Your task to perform on an android device: change the upload size in google photos Image 0: 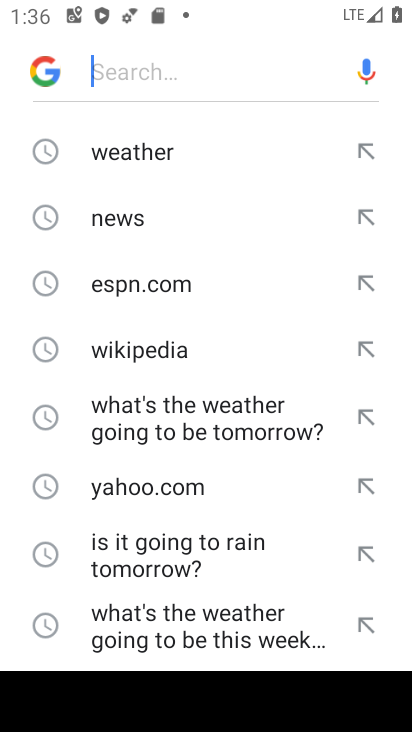
Step 0: press home button
Your task to perform on an android device: change the upload size in google photos Image 1: 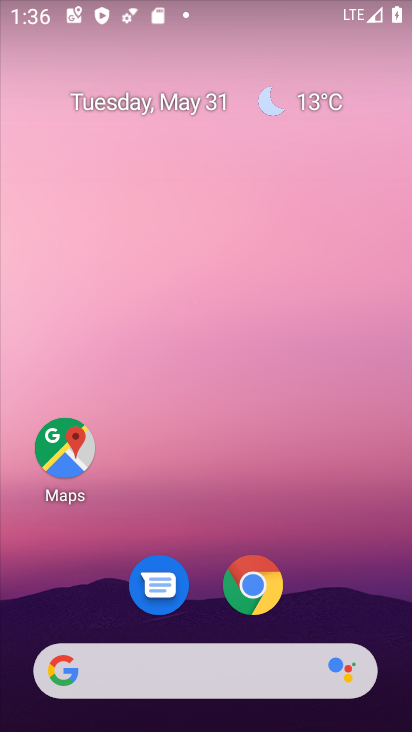
Step 1: drag from (213, 501) to (240, 37)
Your task to perform on an android device: change the upload size in google photos Image 2: 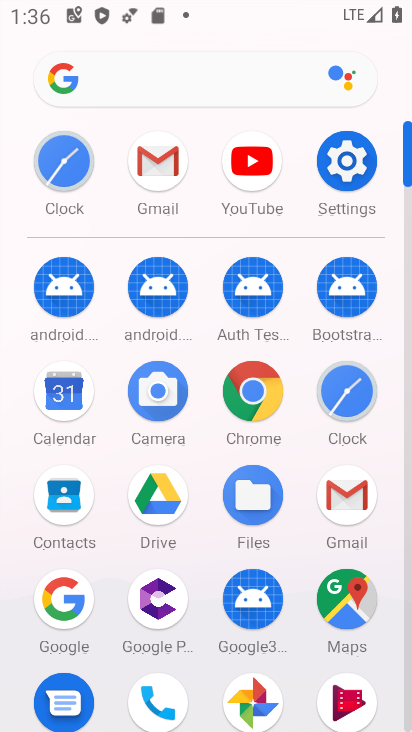
Step 2: click (267, 685)
Your task to perform on an android device: change the upload size in google photos Image 3: 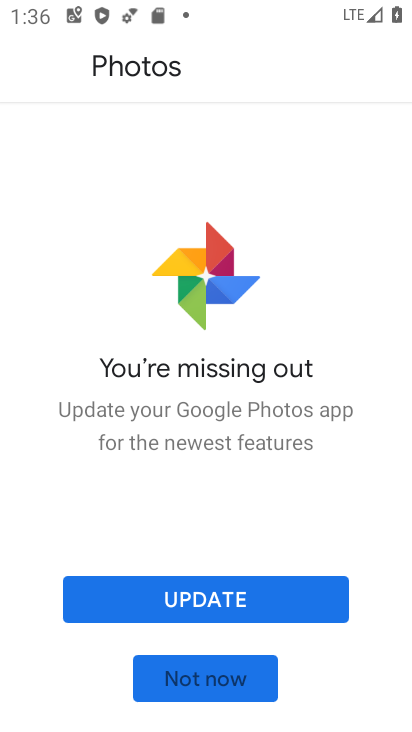
Step 3: click (237, 675)
Your task to perform on an android device: change the upload size in google photos Image 4: 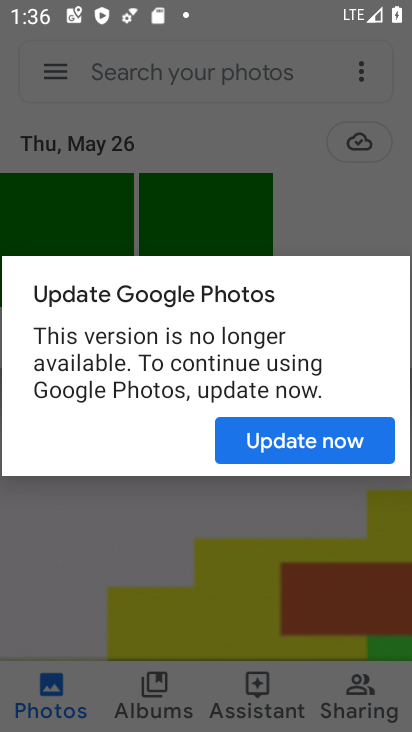
Step 4: click (313, 433)
Your task to perform on an android device: change the upload size in google photos Image 5: 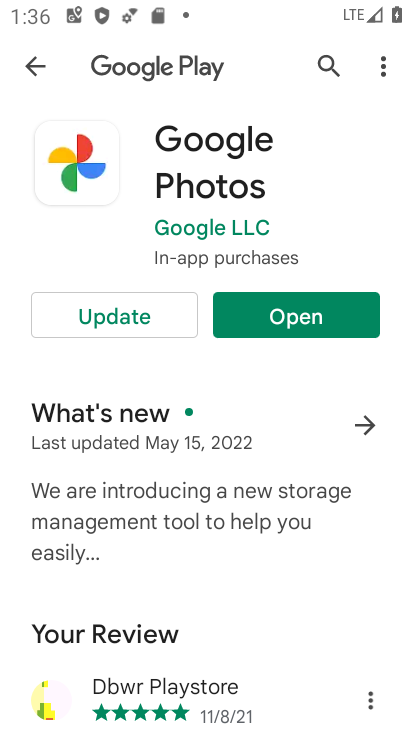
Step 5: click (309, 312)
Your task to perform on an android device: change the upload size in google photos Image 6: 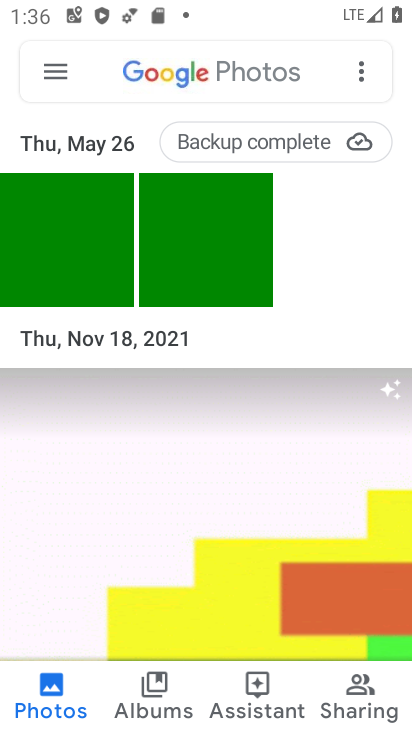
Step 6: click (53, 67)
Your task to perform on an android device: change the upload size in google photos Image 7: 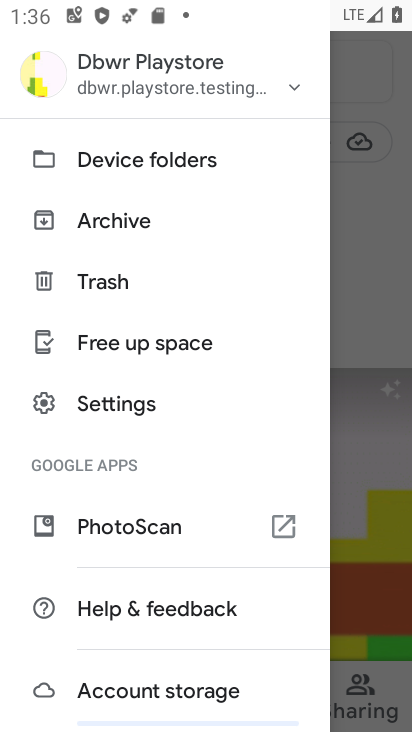
Step 7: click (112, 395)
Your task to perform on an android device: change the upload size in google photos Image 8: 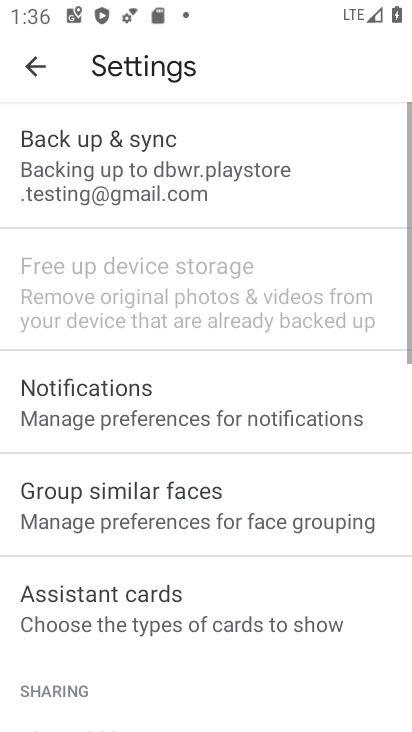
Step 8: click (100, 173)
Your task to perform on an android device: change the upload size in google photos Image 9: 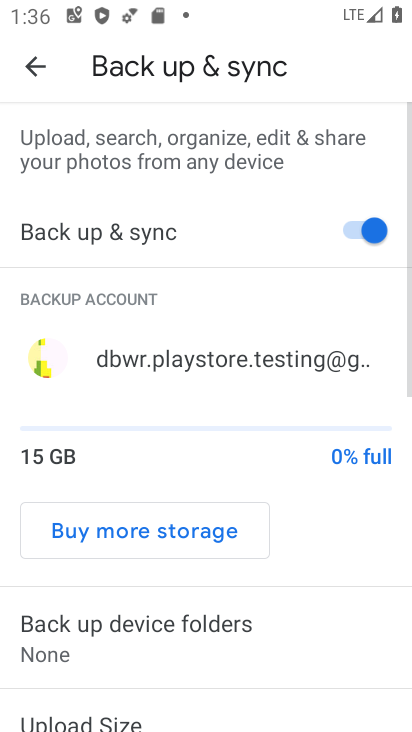
Step 9: drag from (201, 589) to (211, 155)
Your task to perform on an android device: change the upload size in google photos Image 10: 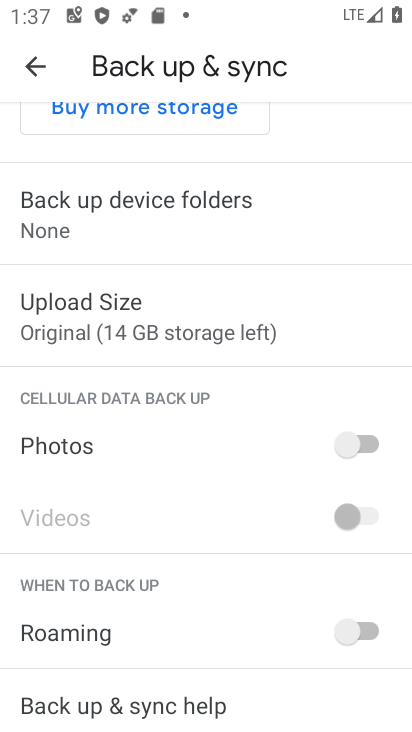
Step 10: click (199, 320)
Your task to perform on an android device: change the upload size in google photos Image 11: 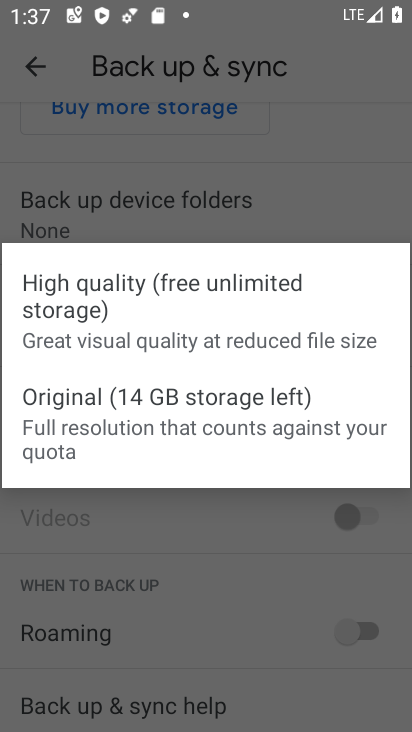
Step 11: click (199, 320)
Your task to perform on an android device: change the upload size in google photos Image 12: 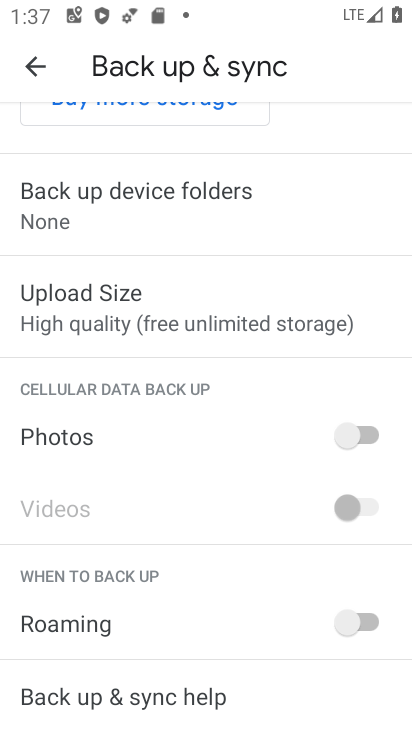
Step 12: task complete